Your task to perform on an android device: delete a single message in the gmail app Image 0: 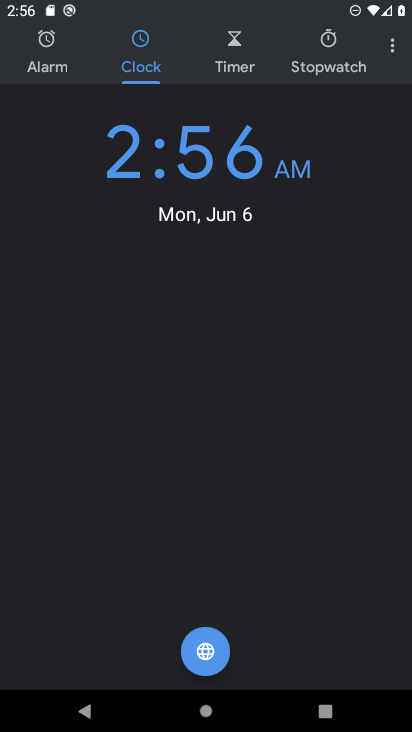
Step 0: press home button
Your task to perform on an android device: delete a single message in the gmail app Image 1: 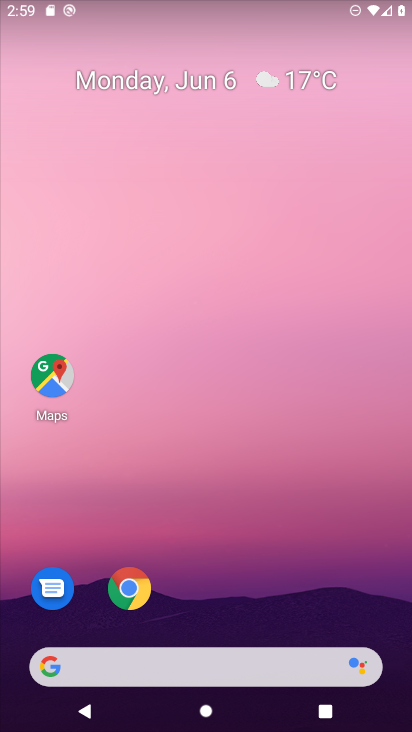
Step 1: drag from (275, 567) to (307, 244)
Your task to perform on an android device: delete a single message in the gmail app Image 2: 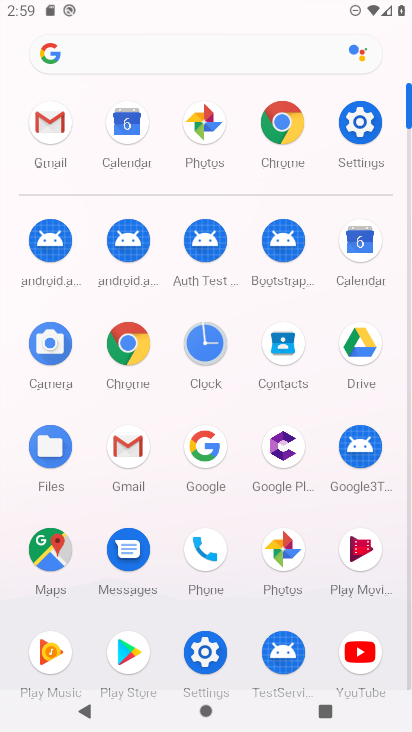
Step 2: click (126, 454)
Your task to perform on an android device: delete a single message in the gmail app Image 3: 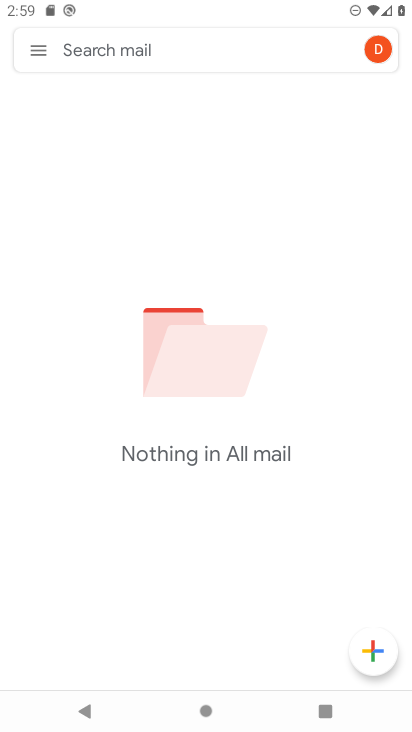
Step 3: task complete